Your task to perform on an android device: Go to Google Image 0: 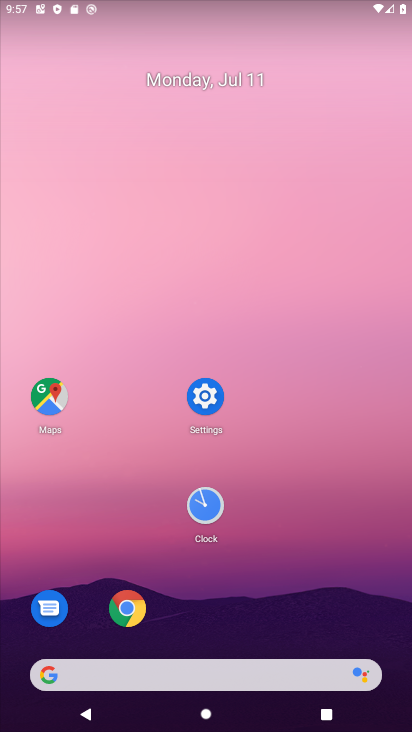
Step 0: drag from (378, 566) to (367, 35)
Your task to perform on an android device: Go to Google Image 1: 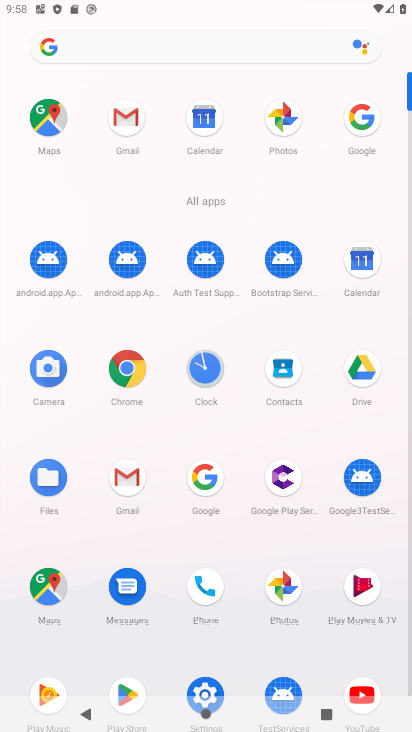
Step 1: click (203, 477)
Your task to perform on an android device: Go to Google Image 2: 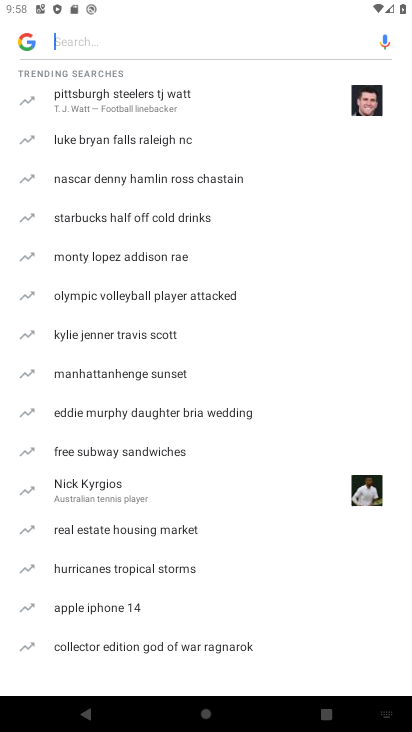
Step 2: press back button
Your task to perform on an android device: Go to Google Image 3: 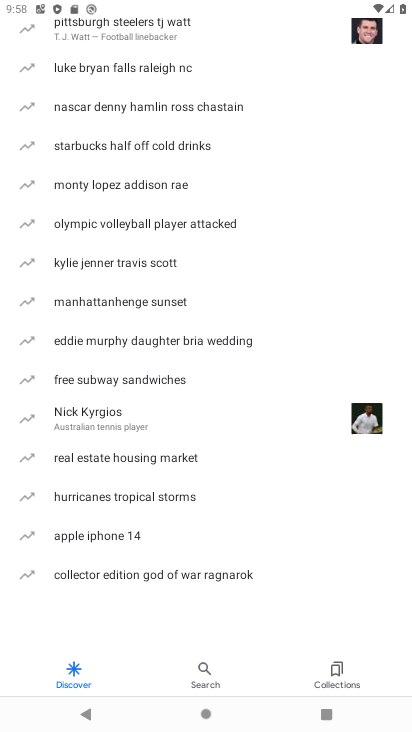
Step 3: press back button
Your task to perform on an android device: Go to Google Image 4: 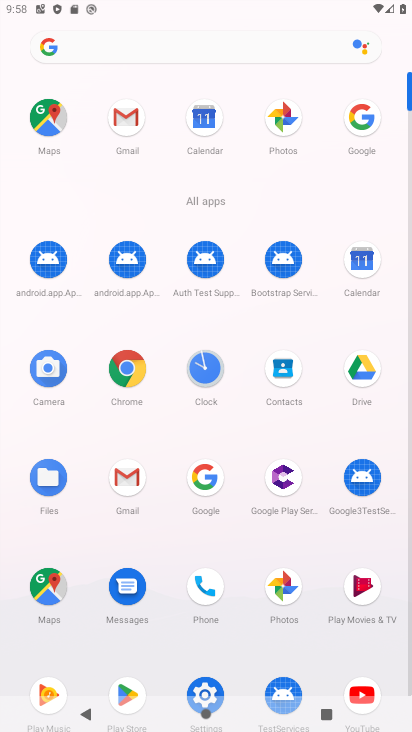
Step 4: click (208, 485)
Your task to perform on an android device: Go to Google Image 5: 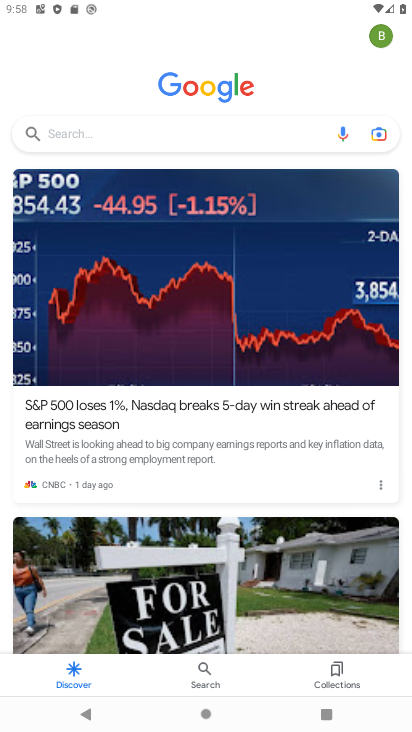
Step 5: click (84, 141)
Your task to perform on an android device: Go to Google Image 6: 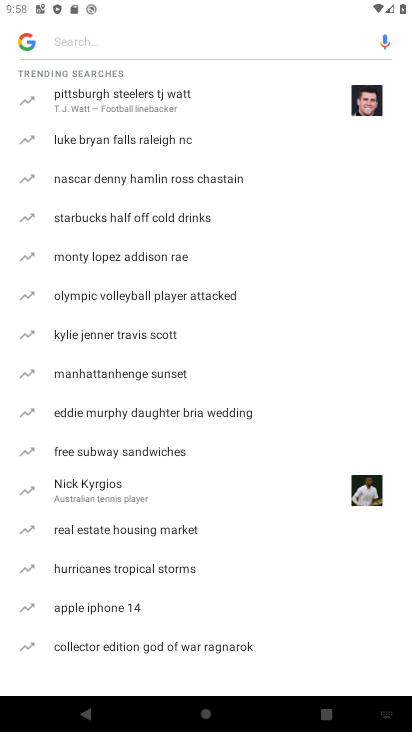
Step 6: press home button
Your task to perform on an android device: Go to Google Image 7: 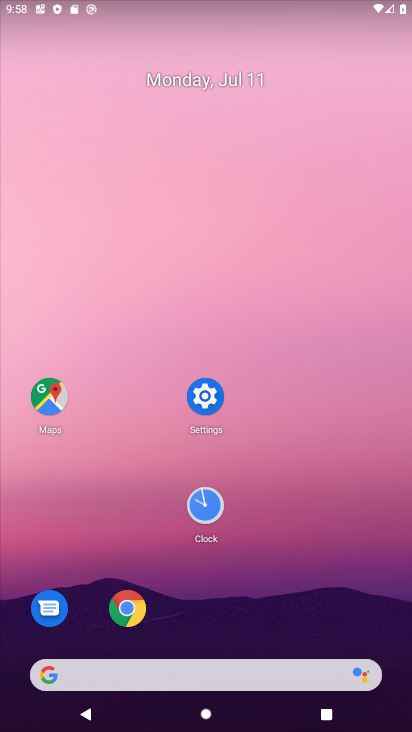
Step 7: drag from (397, 455) to (340, 97)
Your task to perform on an android device: Go to Google Image 8: 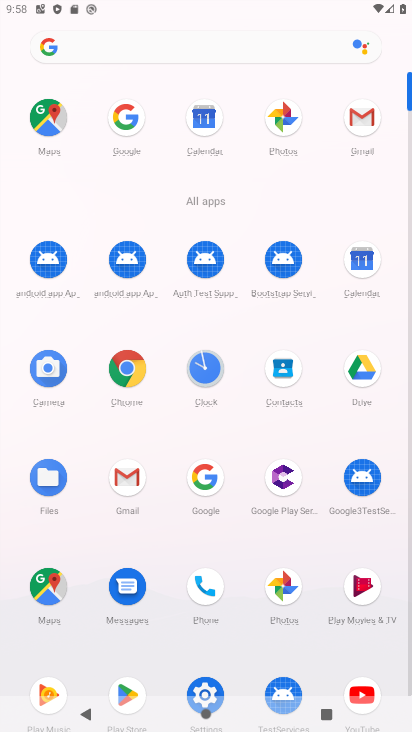
Step 8: click (128, 119)
Your task to perform on an android device: Go to Google Image 9: 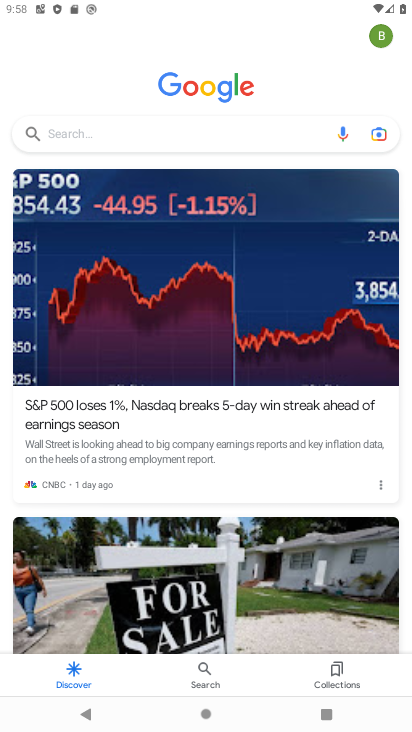
Step 9: task complete